Your task to perform on an android device: delete location history Image 0: 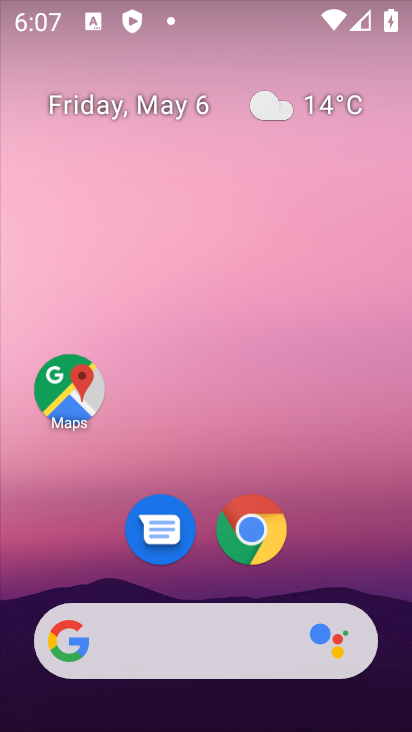
Step 0: drag from (343, 559) to (181, 10)
Your task to perform on an android device: delete location history Image 1: 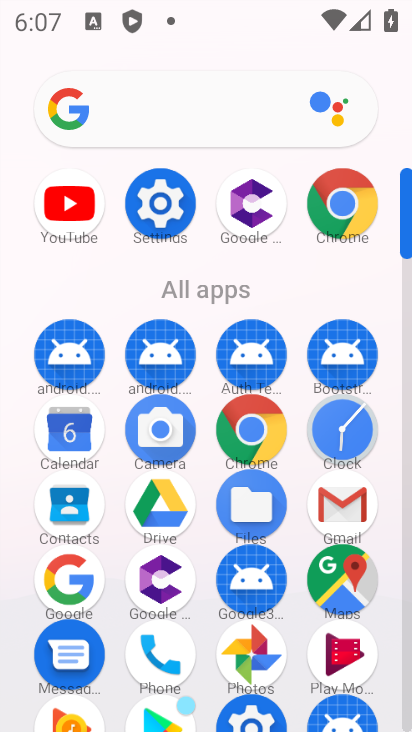
Step 1: click (149, 191)
Your task to perform on an android device: delete location history Image 2: 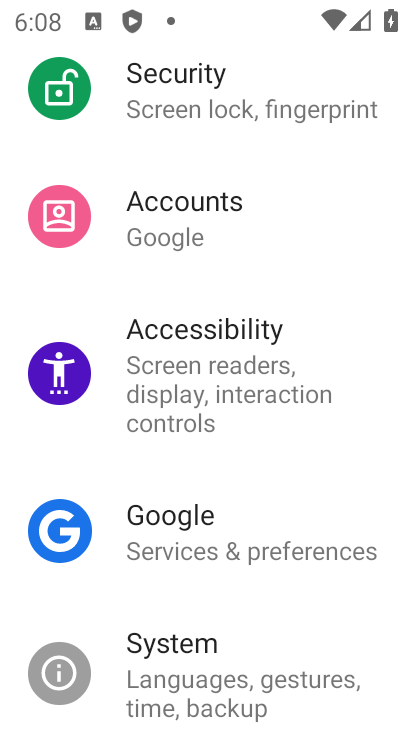
Step 2: drag from (273, 624) to (268, 75)
Your task to perform on an android device: delete location history Image 3: 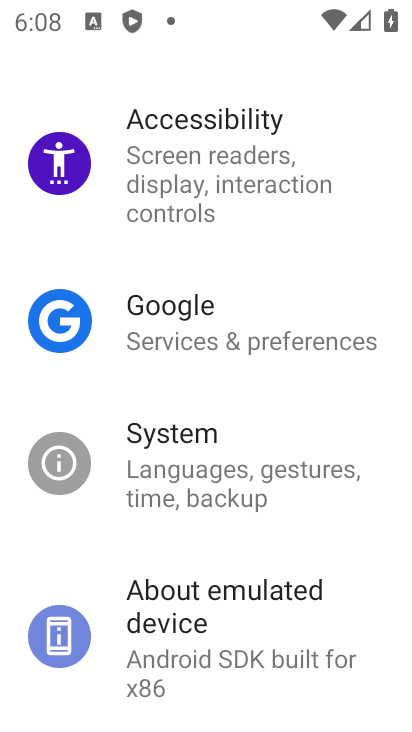
Step 3: drag from (294, 588) to (286, 266)
Your task to perform on an android device: delete location history Image 4: 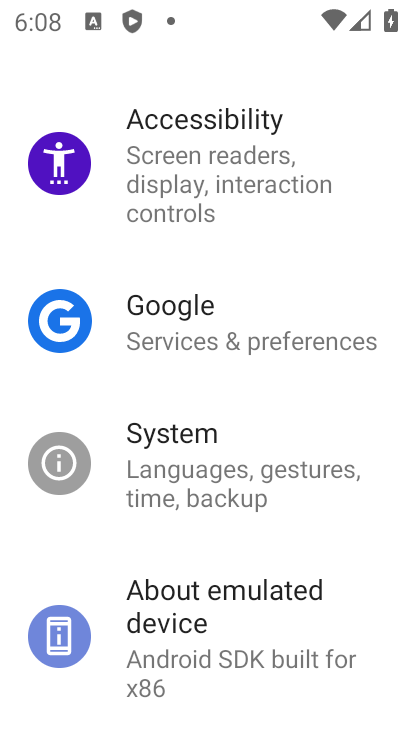
Step 4: drag from (240, 552) to (241, 77)
Your task to perform on an android device: delete location history Image 5: 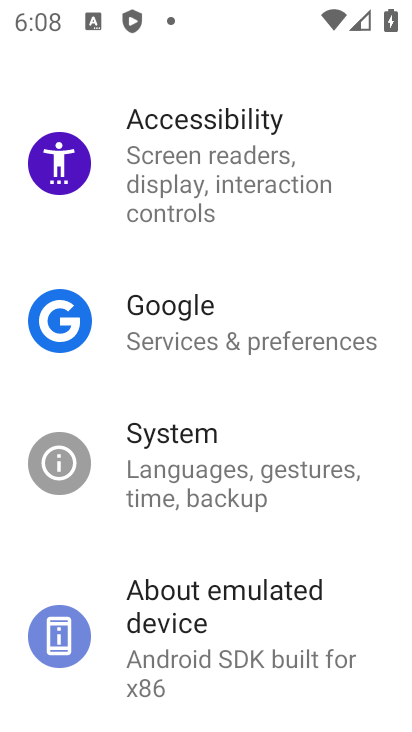
Step 5: drag from (217, 205) to (199, 729)
Your task to perform on an android device: delete location history Image 6: 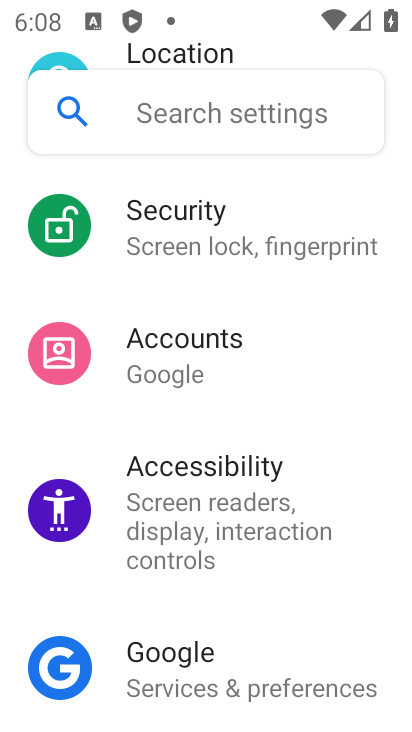
Step 6: drag from (229, 176) to (186, 724)
Your task to perform on an android device: delete location history Image 7: 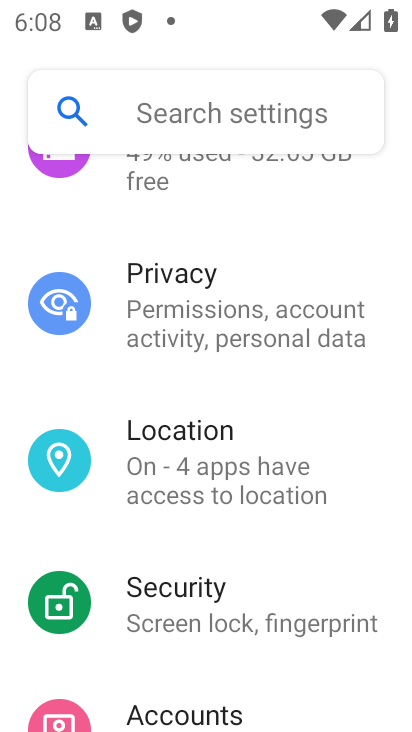
Step 7: click (186, 513)
Your task to perform on an android device: delete location history Image 8: 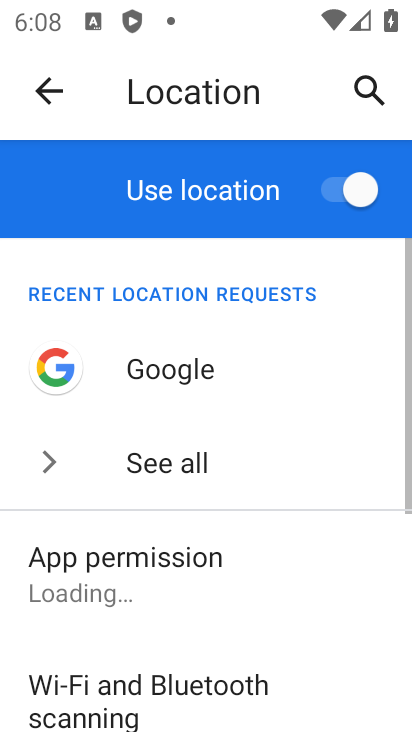
Step 8: drag from (226, 560) to (205, 132)
Your task to perform on an android device: delete location history Image 9: 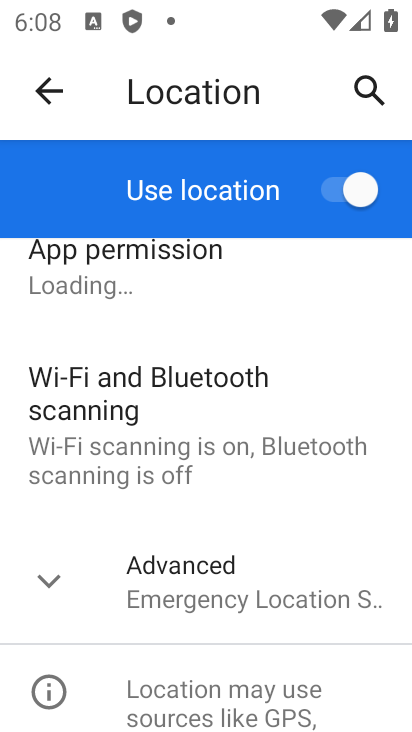
Step 9: click (214, 598)
Your task to perform on an android device: delete location history Image 10: 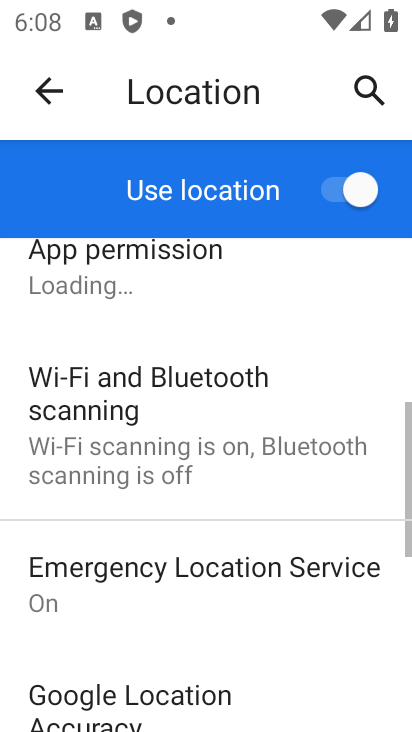
Step 10: drag from (198, 618) to (221, 128)
Your task to perform on an android device: delete location history Image 11: 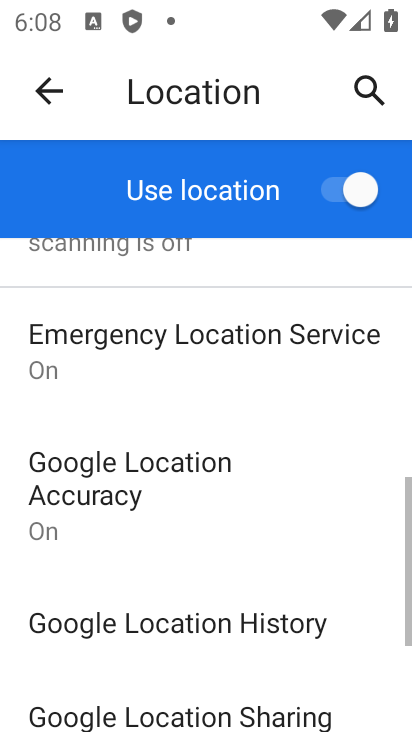
Step 11: click (235, 618)
Your task to perform on an android device: delete location history Image 12: 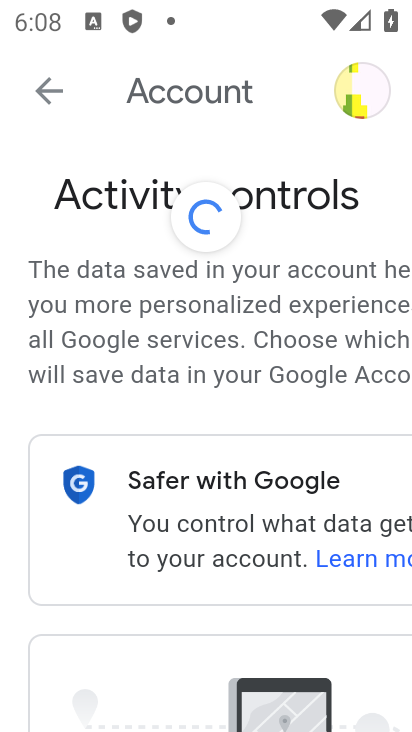
Step 12: drag from (213, 570) to (179, 126)
Your task to perform on an android device: delete location history Image 13: 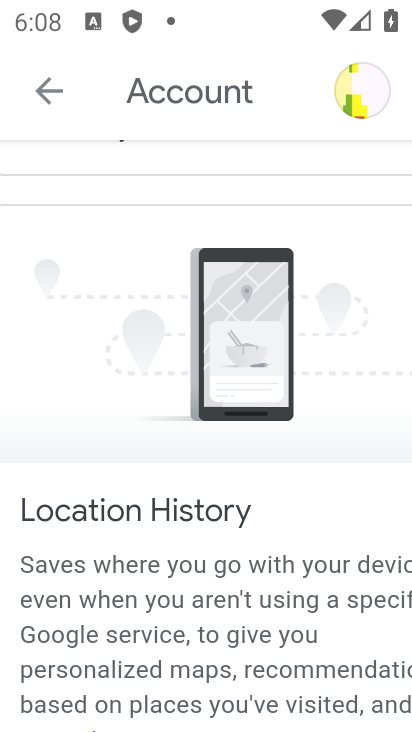
Step 13: drag from (223, 601) to (197, 178)
Your task to perform on an android device: delete location history Image 14: 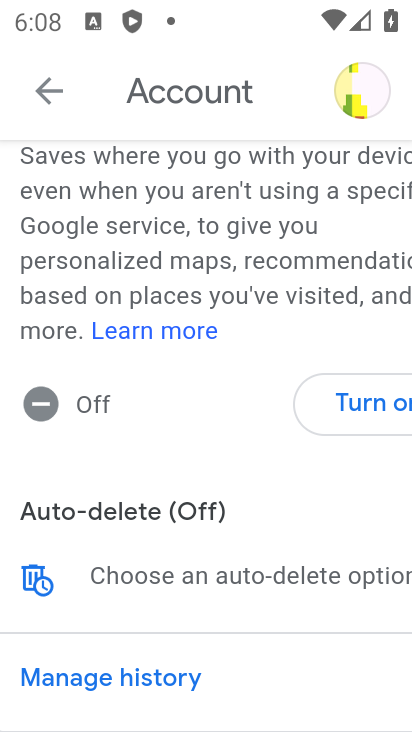
Step 14: click (34, 580)
Your task to perform on an android device: delete location history Image 15: 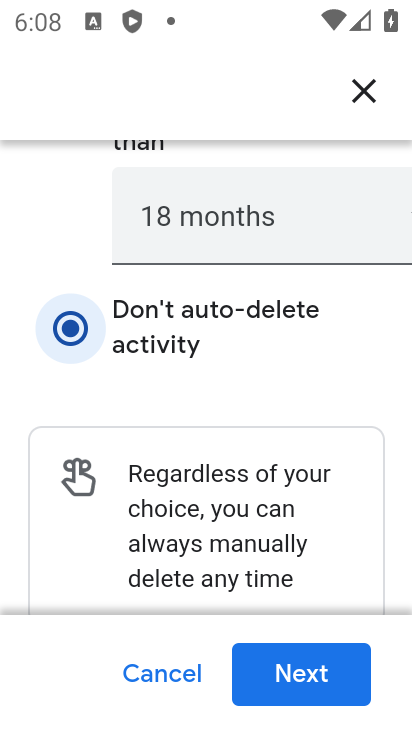
Step 15: click (309, 668)
Your task to perform on an android device: delete location history Image 16: 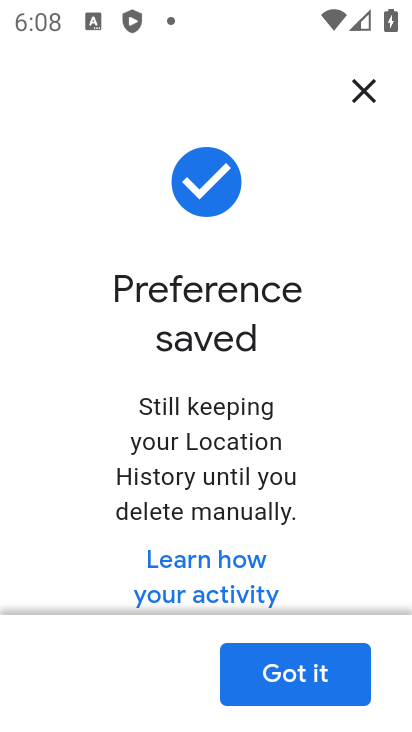
Step 16: click (297, 677)
Your task to perform on an android device: delete location history Image 17: 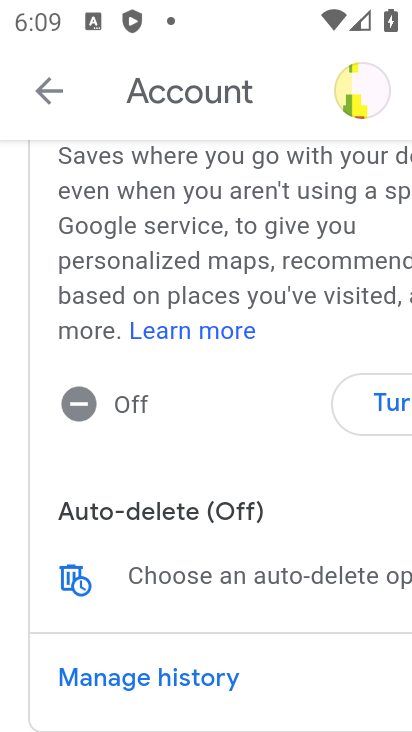
Step 17: task complete